Your task to perform on an android device: allow notifications from all sites in the chrome app Image 0: 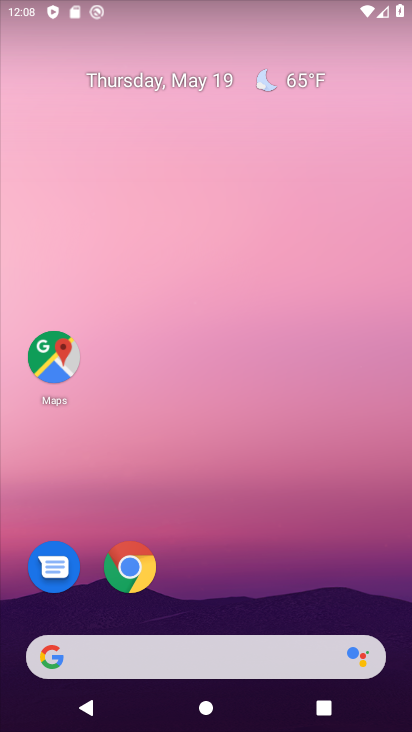
Step 0: click (132, 573)
Your task to perform on an android device: allow notifications from all sites in the chrome app Image 1: 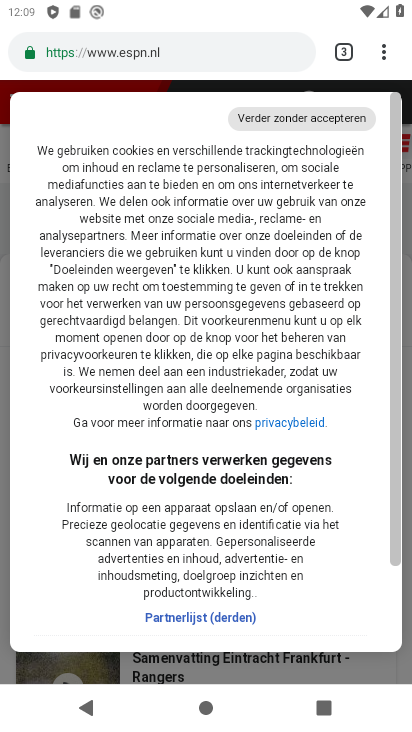
Step 1: click (383, 49)
Your task to perform on an android device: allow notifications from all sites in the chrome app Image 2: 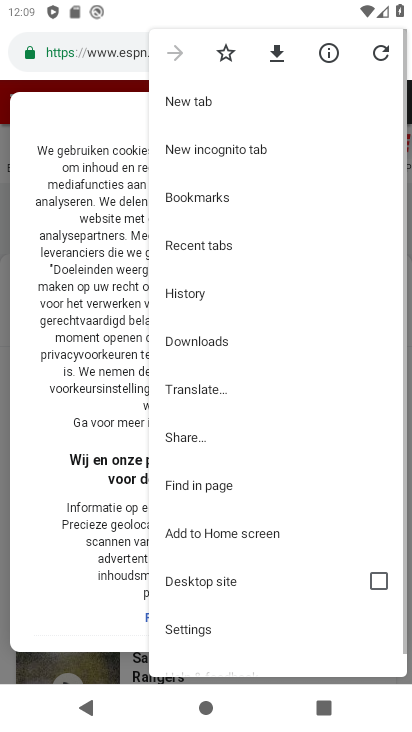
Step 2: click (383, 49)
Your task to perform on an android device: allow notifications from all sites in the chrome app Image 3: 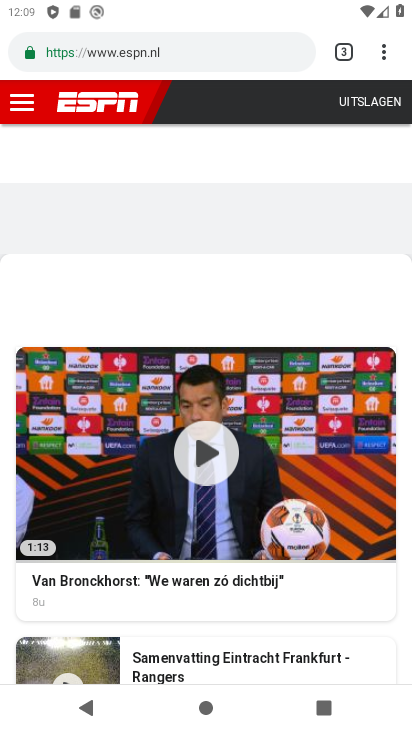
Step 3: click (391, 51)
Your task to perform on an android device: allow notifications from all sites in the chrome app Image 4: 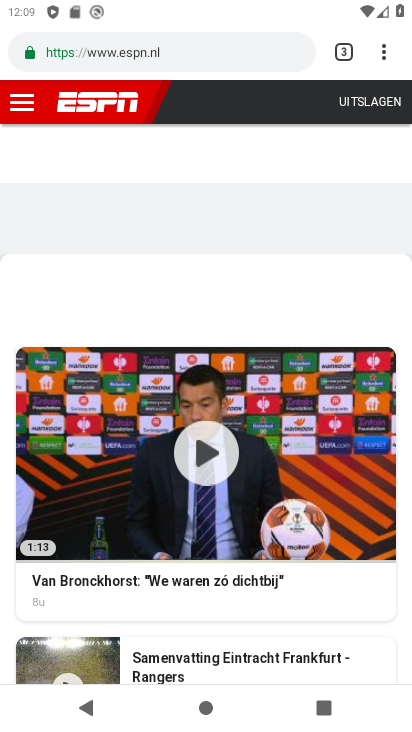
Step 4: click (388, 47)
Your task to perform on an android device: allow notifications from all sites in the chrome app Image 5: 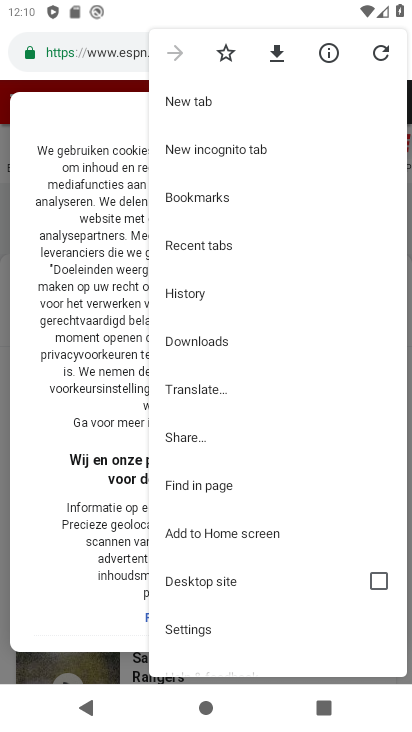
Step 5: click (205, 628)
Your task to perform on an android device: allow notifications from all sites in the chrome app Image 6: 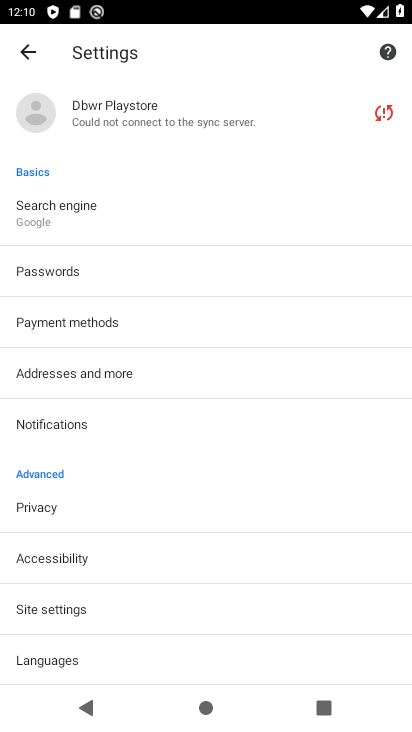
Step 6: click (79, 427)
Your task to perform on an android device: allow notifications from all sites in the chrome app Image 7: 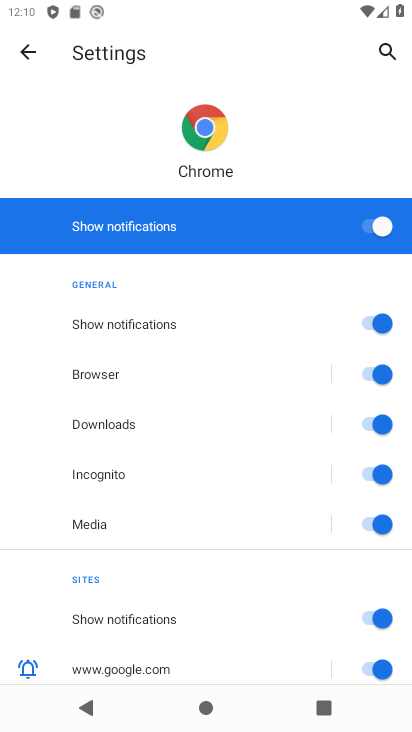
Step 7: task complete